Your task to perform on an android device: turn off wifi Image 0: 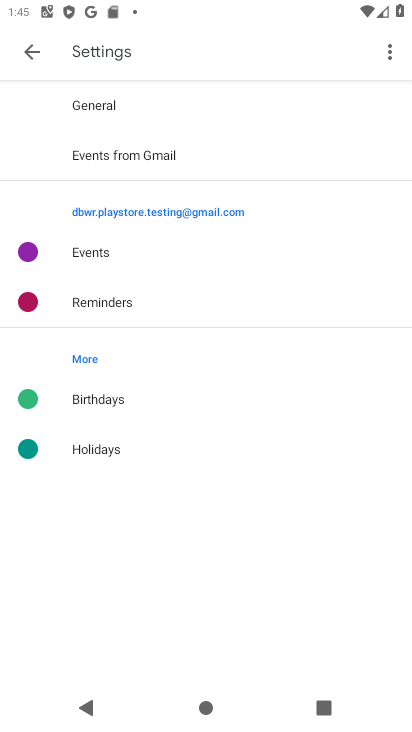
Step 0: press home button
Your task to perform on an android device: turn off wifi Image 1: 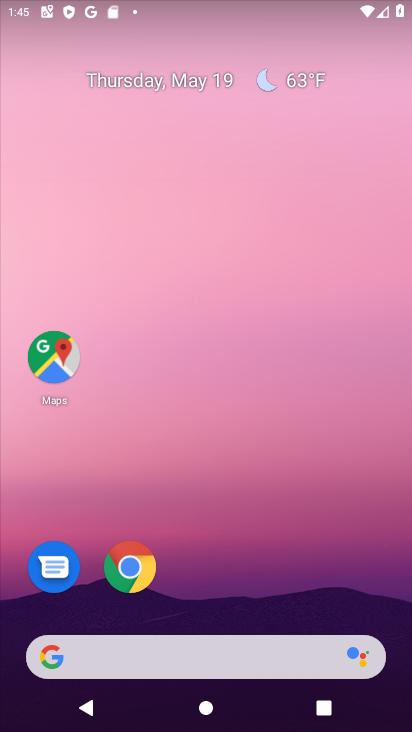
Step 1: drag from (304, 562) to (264, 179)
Your task to perform on an android device: turn off wifi Image 2: 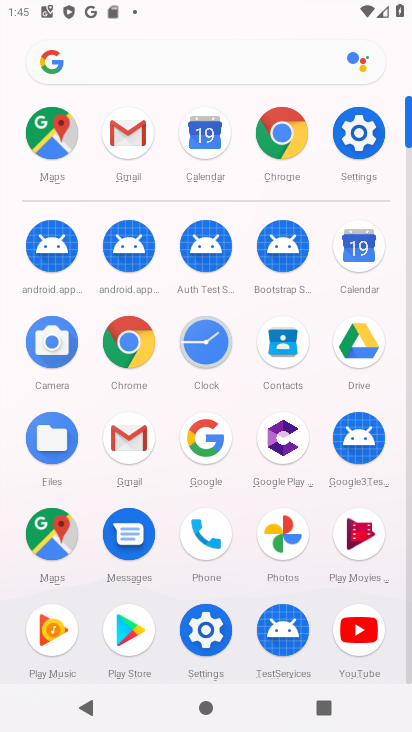
Step 2: click (363, 135)
Your task to perform on an android device: turn off wifi Image 3: 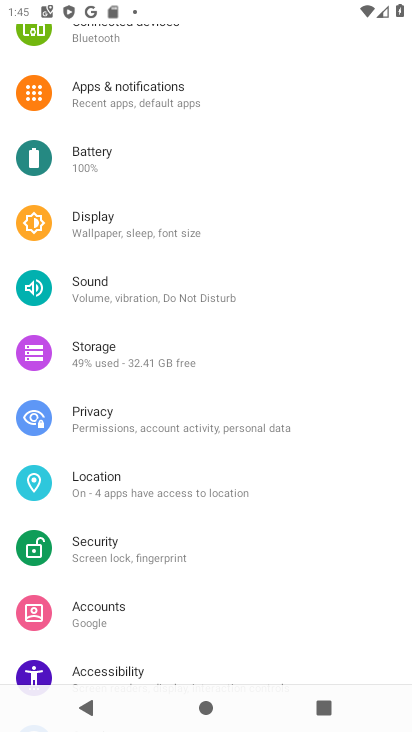
Step 3: drag from (254, 217) to (309, 492)
Your task to perform on an android device: turn off wifi Image 4: 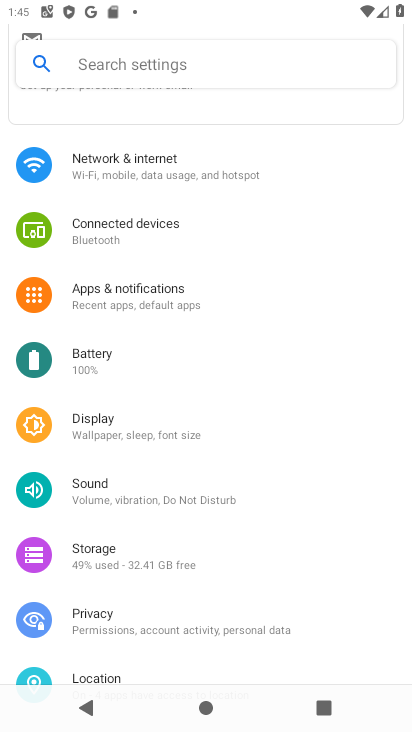
Step 4: drag from (194, 186) to (213, 445)
Your task to perform on an android device: turn off wifi Image 5: 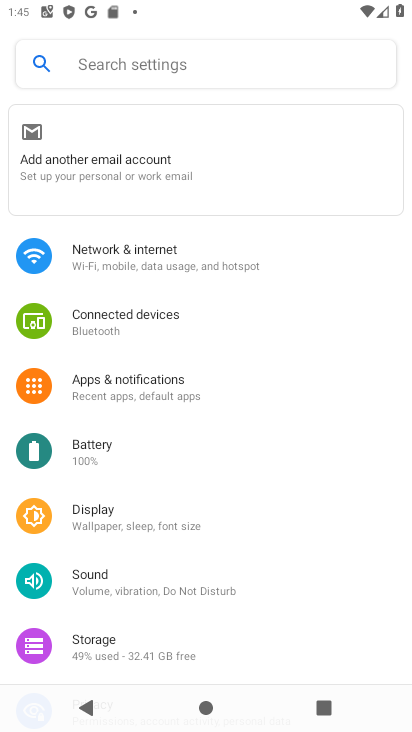
Step 5: click (124, 251)
Your task to perform on an android device: turn off wifi Image 6: 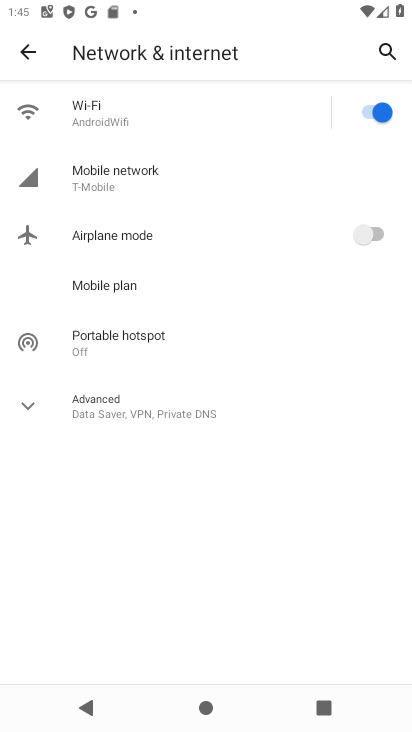
Step 6: click (368, 130)
Your task to perform on an android device: turn off wifi Image 7: 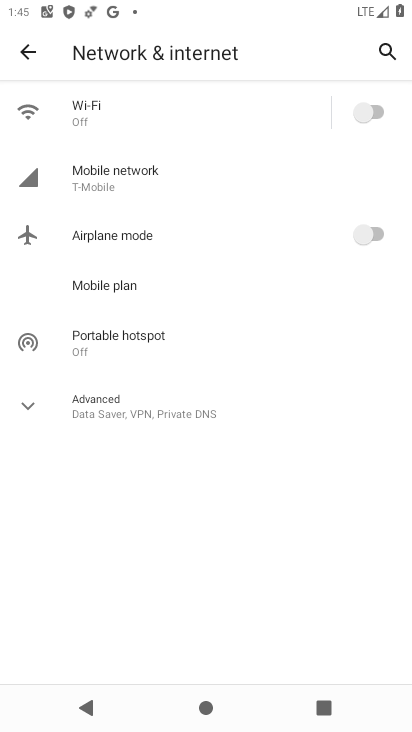
Step 7: task complete